Your task to perform on an android device: move a message to another label in the gmail app Image 0: 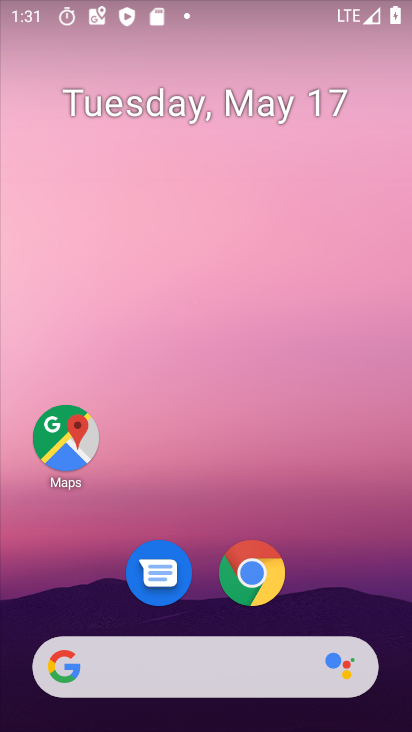
Step 0: drag from (167, 702) to (234, 268)
Your task to perform on an android device: move a message to another label in the gmail app Image 1: 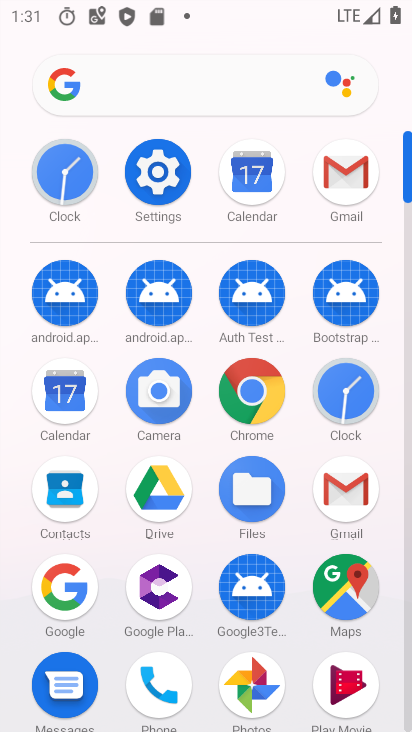
Step 1: click (349, 184)
Your task to perform on an android device: move a message to another label in the gmail app Image 2: 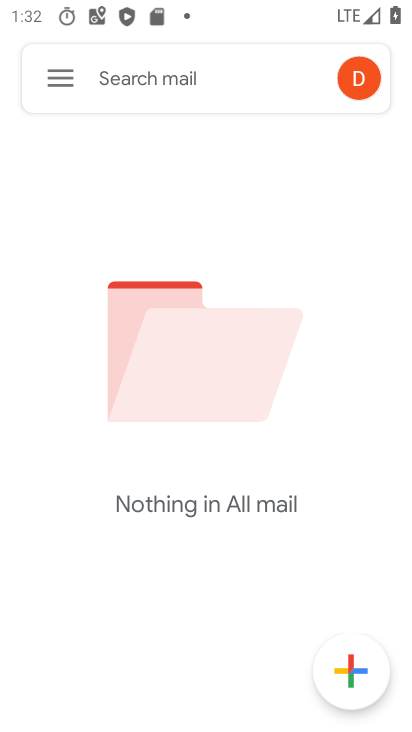
Step 2: task complete